Your task to perform on an android device: turn vacation reply on in the gmail app Image 0: 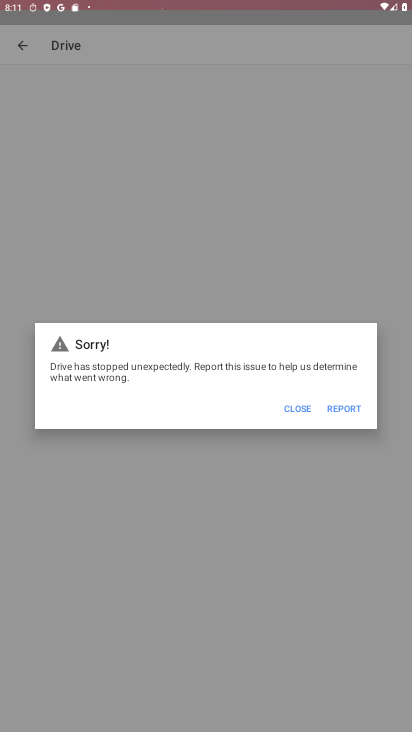
Step 0: click (17, 34)
Your task to perform on an android device: turn vacation reply on in the gmail app Image 1: 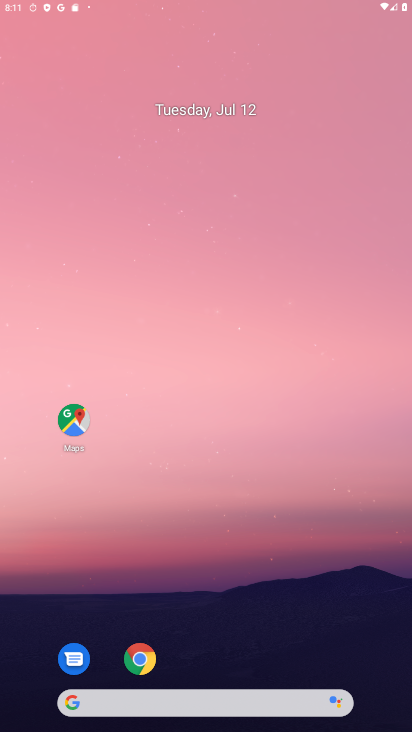
Step 1: drag from (260, 680) to (207, 215)
Your task to perform on an android device: turn vacation reply on in the gmail app Image 2: 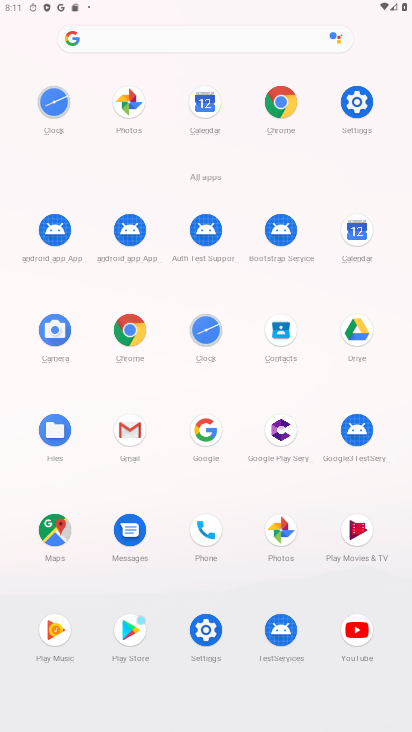
Step 2: click (127, 436)
Your task to perform on an android device: turn vacation reply on in the gmail app Image 3: 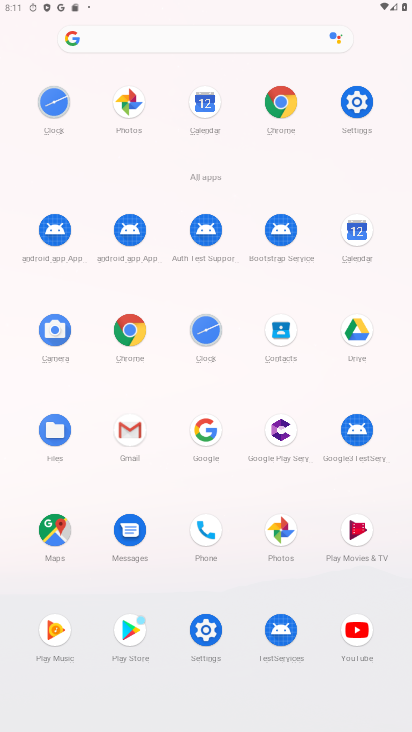
Step 3: click (127, 436)
Your task to perform on an android device: turn vacation reply on in the gmail app Image 4: 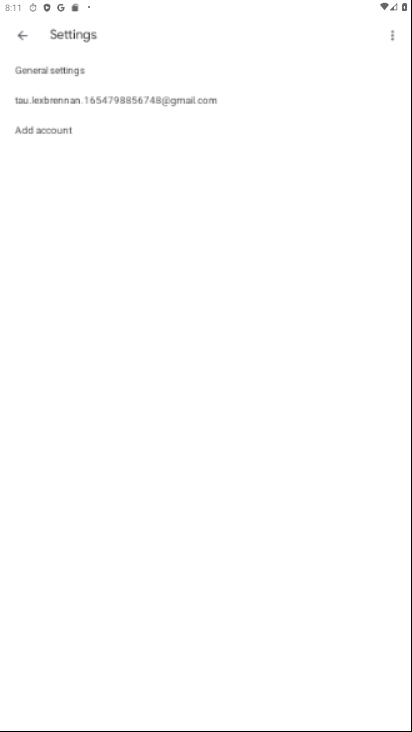
Step 4: click (127, 436)
Your task to perform on an android device: turn vacation reply on in the gmail app Image 5: 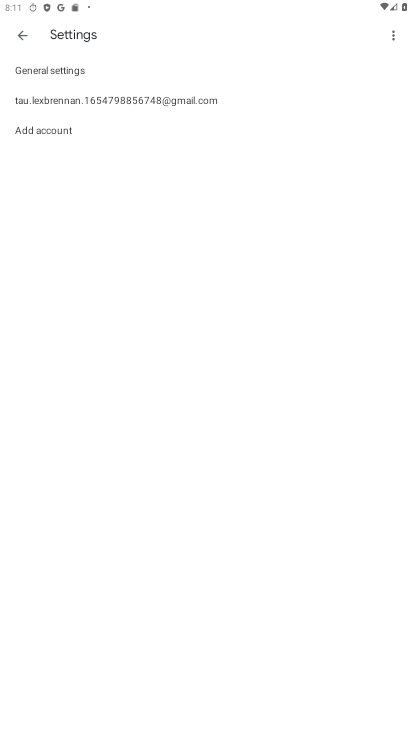
Step 5: click (88, 91)
Your task to perform on an android device: turn vacation reply on in the gmail app Image 6: 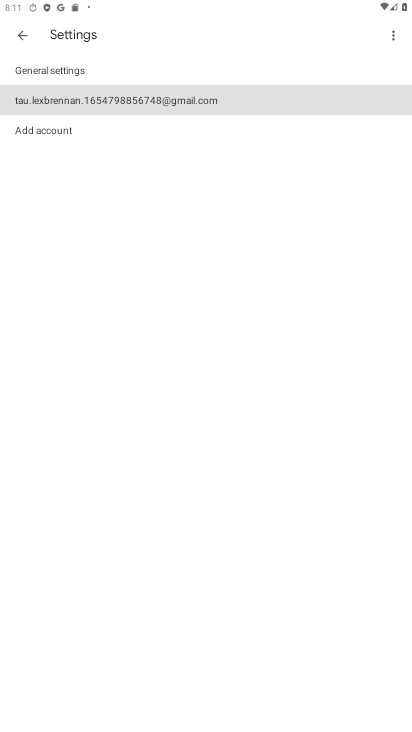
Step 6: click (88, 91)
Your task to perform on an android device: turn vacation reply on in the gmail app Image 7: 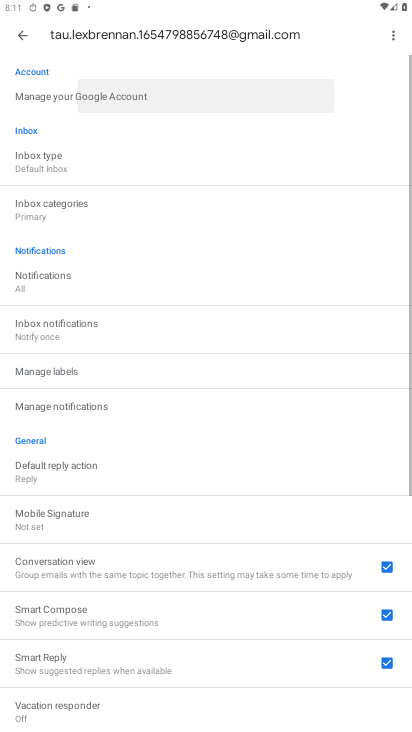
Step 7: click (88, 91)
Your task to perform on an android device: turn vacation reply on in the gmail app Image 8: 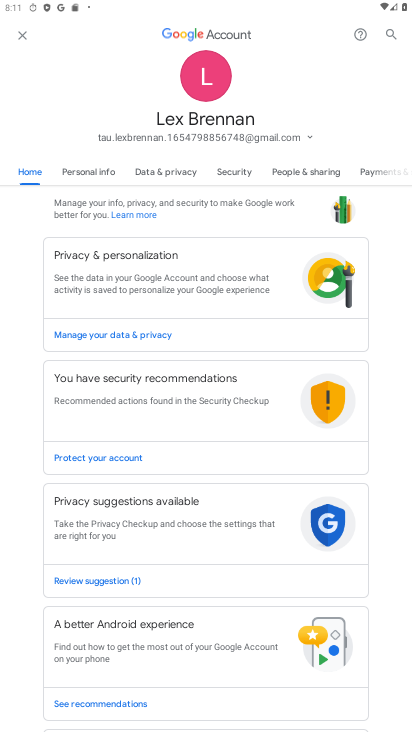
Step 8: click (21, 32)
Your task to perform on an android device: turn vacation reply on in the gmail app Image 9: 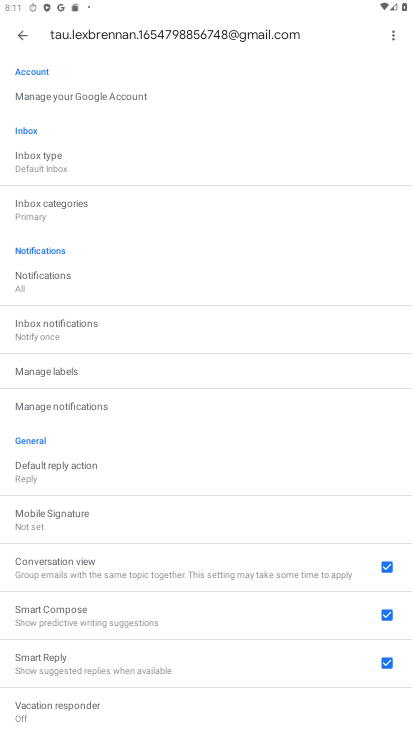
Step 9: drag from (74, 625) to (53, 307)
Your task to perform on an android device: turn vacation reply on in the gmail app Image 10: 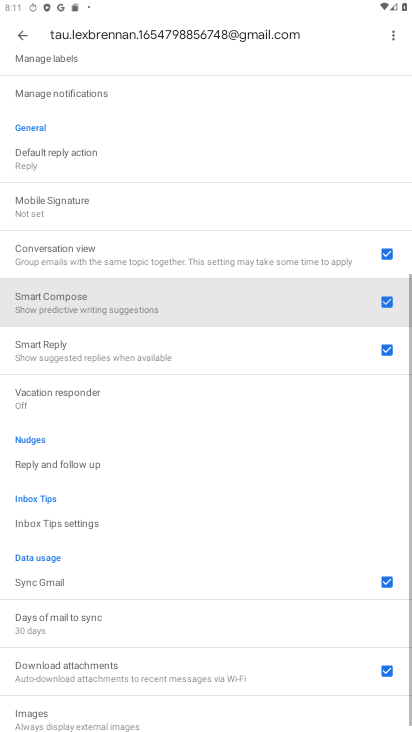
Step 10: drag from (148, 629) to (145, 312)
Your task to perform on an android device: turn vacation reply on in the gmail app Image 11: 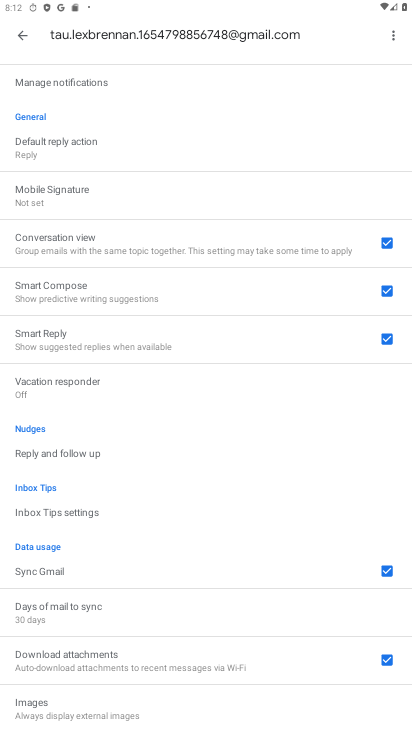
Step 11: drag from (116, 613) to (100, 335)
Your task to perform on an android device: turn vacation reply on in the gmail app Image 12: 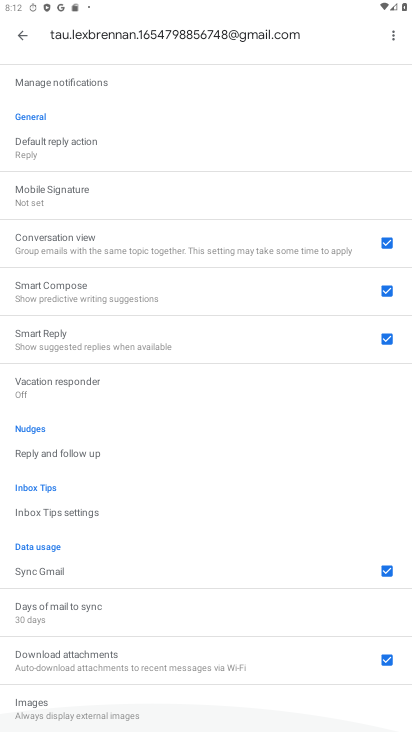
Step 12: drag from (175, 556) to (126, 250)
Your task to perform on an android device: turn vacation reply on in the gmail app Image 13: 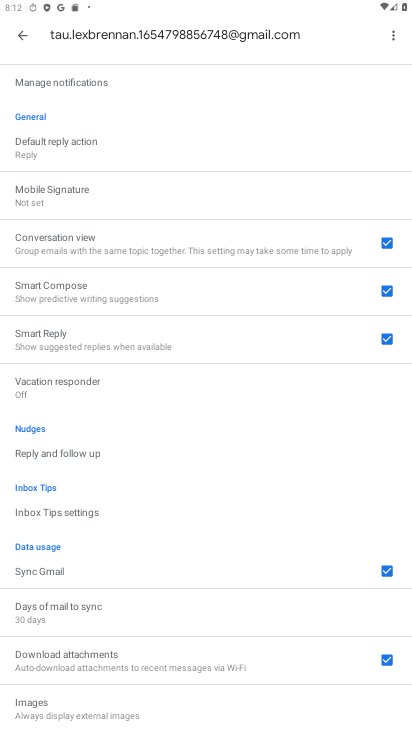
Step 13: drag from (132, 567) to (122, 74)
Your task to perform on an android device: turn vacation reply on in the gmail app Image 14: 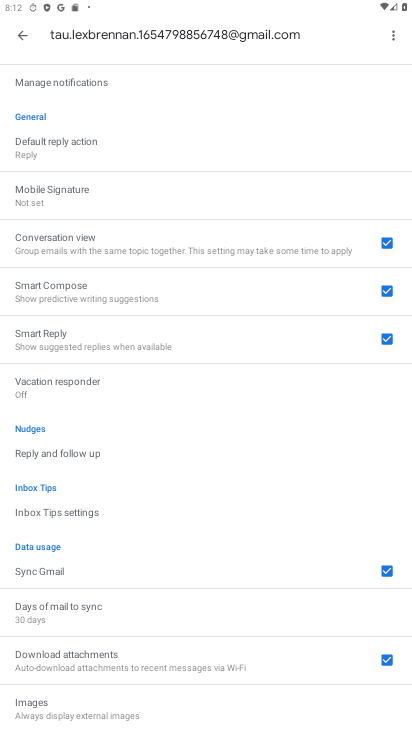
Step 14: click (57, 386)
Your task to perform on an android device: turn vacation reply on in the gmail app Image 15: 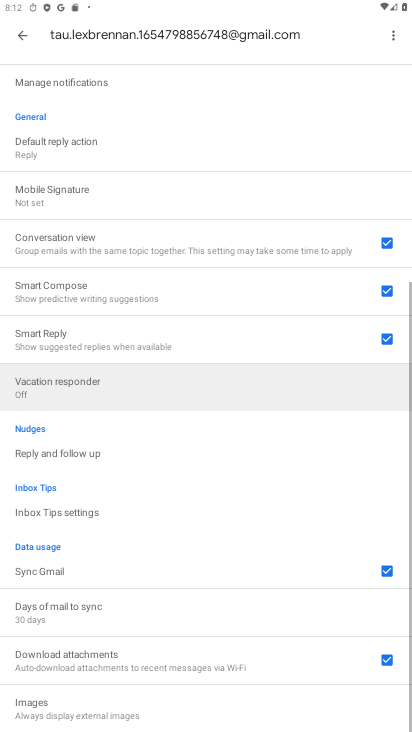
Step 15: click (57, 386)
Your task to perform on an android device: turn vacation reply on in the gmail app Image 16: 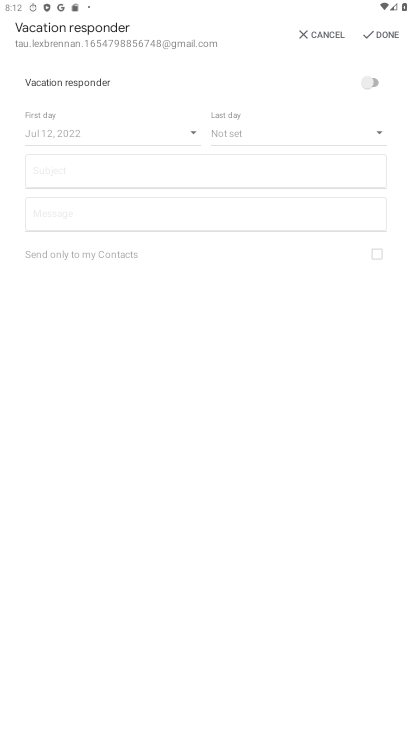
Step 16: task complete